Your task to perform on an android device: Set the phone to "Do not disturb". Image 0: 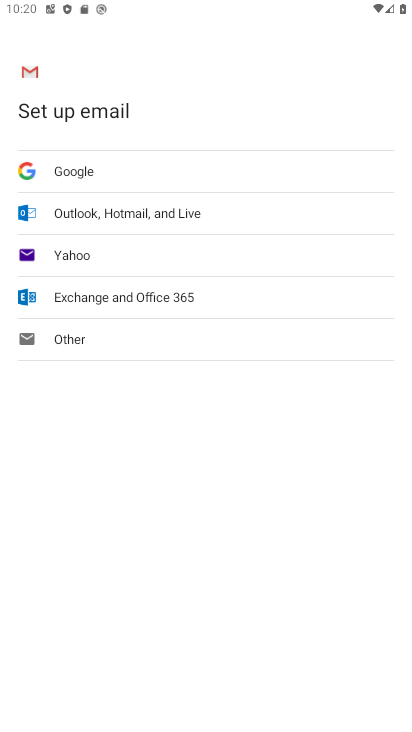
Step 0: press home button
Your task to perform on an android device: Set the phone to "Do not disturb". Image 1: 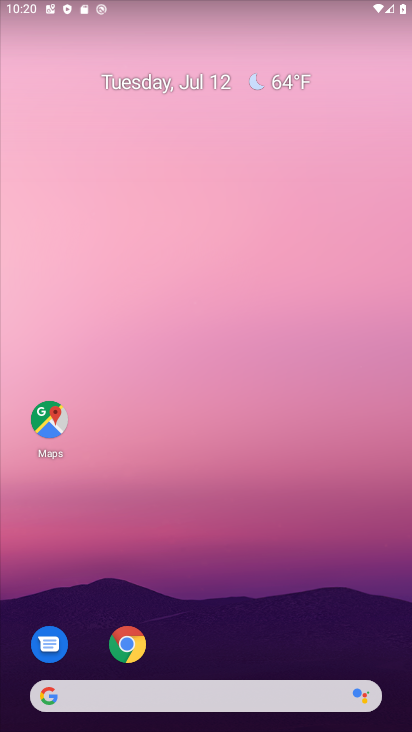
Step 1: drag from (224, 654) to (230, 71)
Your task to perform on an android device: Set the phone to "Do not disturb". Image 2: 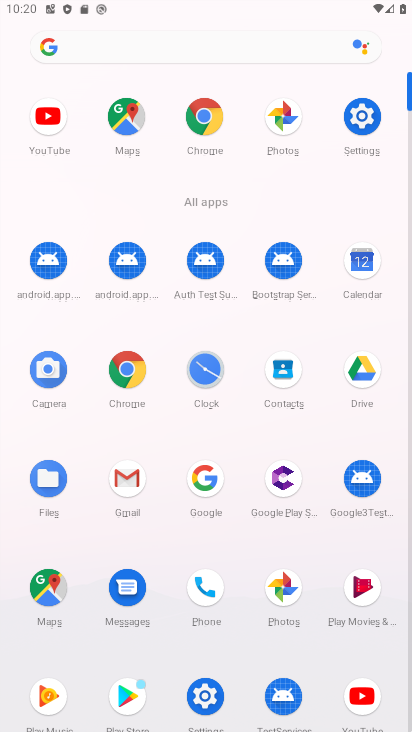
Step 2: click (344, 122)
Your task to perform on an android device: Set the phone to "Do not disturb". Image 3: 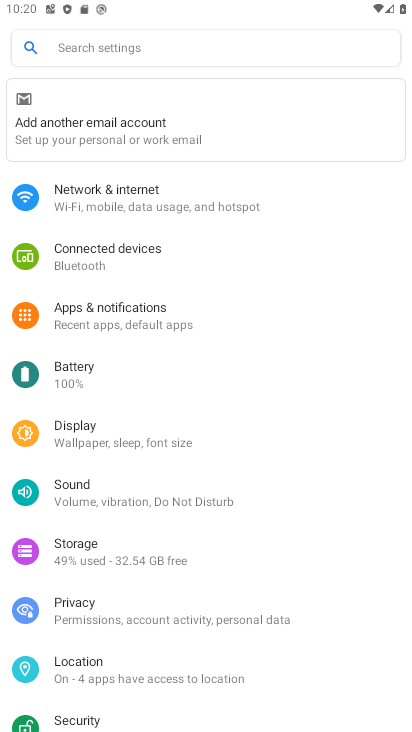
Step 3: click (134, 502)
Your task to perform on an android device: Set the phone to "Do not disturb". Image 4: 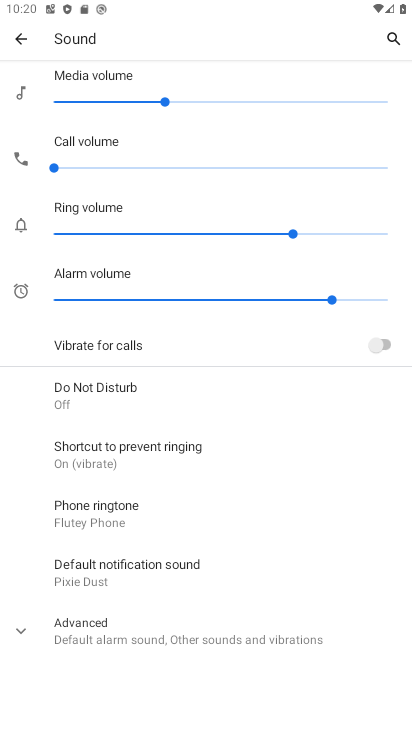
Step 4: click (149, 403)
Your task to perform on an android device: Set the phone to "Do not disturb". Image 5: 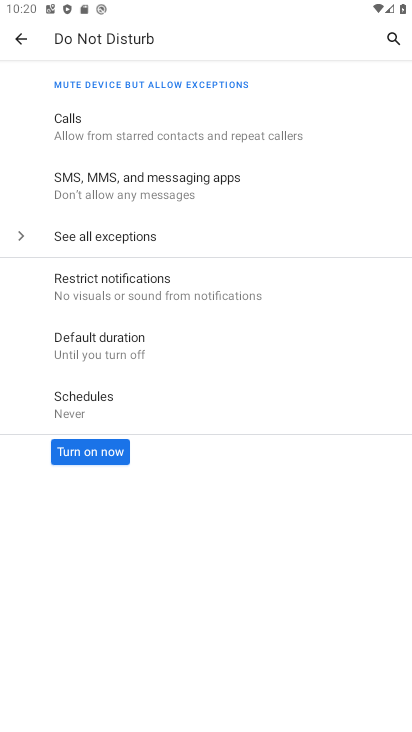
Step 5: click (90, 444)
Your task to perform on an android device: Set the phone to "Do not disturb". Image 6: 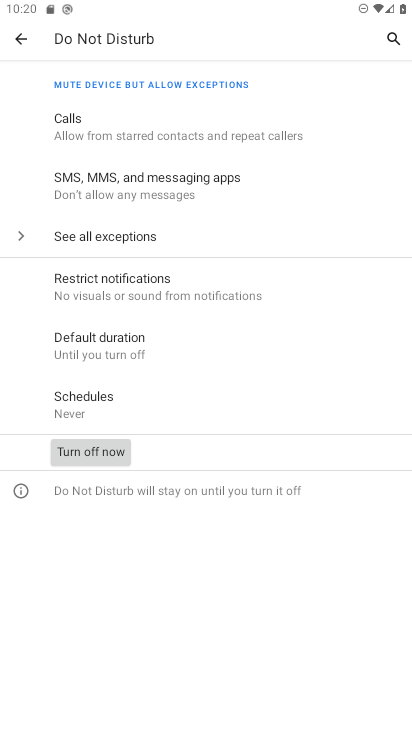
Step 6: task complete